Your task to perform on an android device: refresh tabs in the chrome app Image 0: 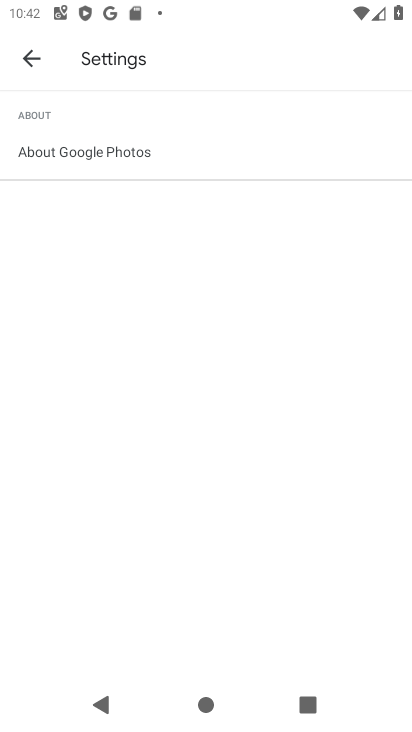
Step 0: press home button
Your task to perform on an android device: refresh tabs in the chrome app Image 1: 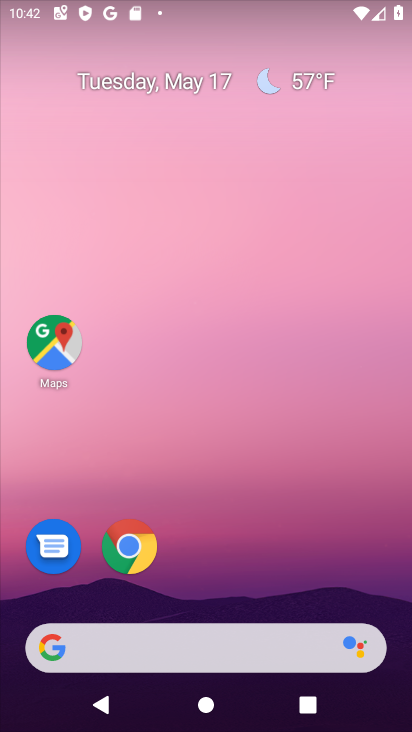
Step 1: click (122, 553)
Your task to perform on an android device: refresh tabs in the chrome app Image 2: 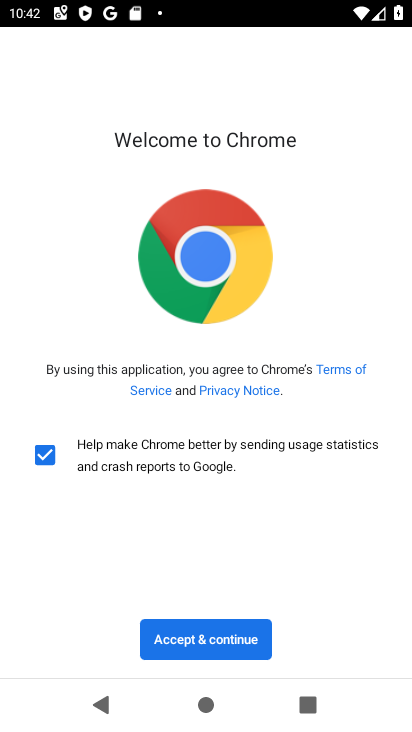
Step 2: click (233, 645)
Your task to perform on an android device: refresh tabs in the chrome app Image 3: 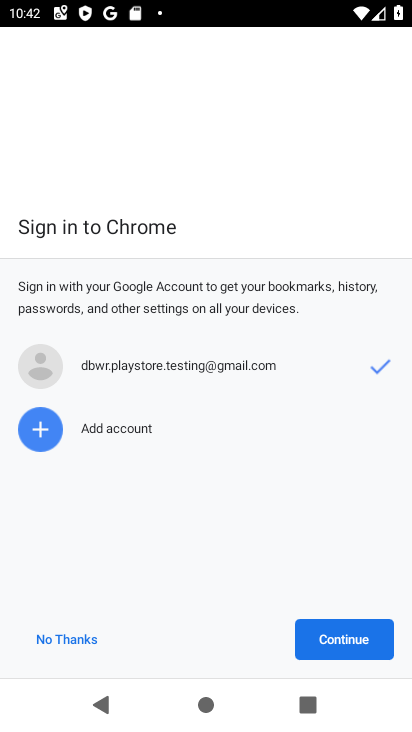
Step 3: click (351, 645)
Your task to perform on an android device: refresh tabs in the chrome app Image 4: 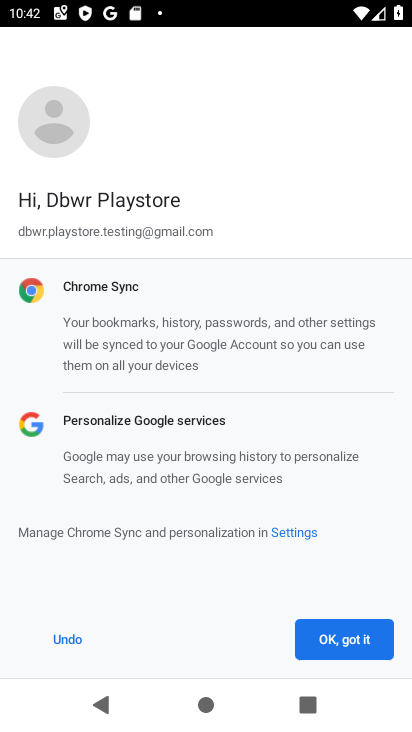
Step 4: click (351, 645)
Your task to perform on an android device: refresh tabs in the chrome app Image 5: 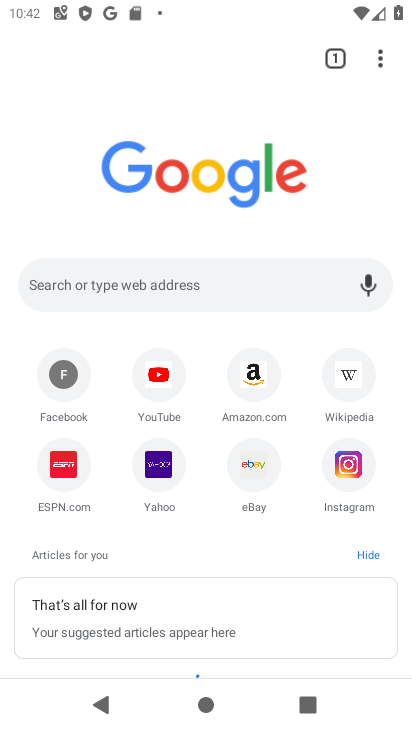
Step 5: click (388, 57)
Your task to perform on an android device: refresh tabs in the chrome app Image 6: 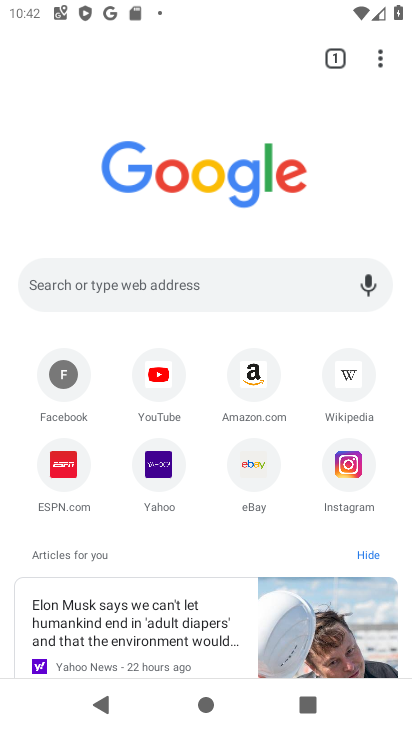
Step 6: task complete